Your task to perform on an android device: What's the weather today? Image 0: 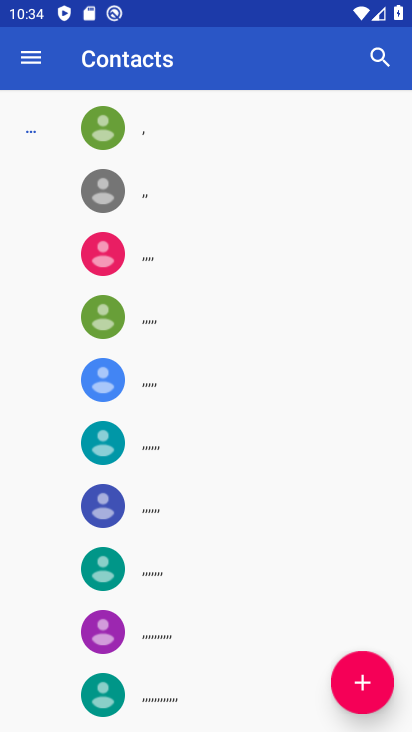
Step 0: press home button
Your task to perform on an android device: What's the weather today? Image 1: 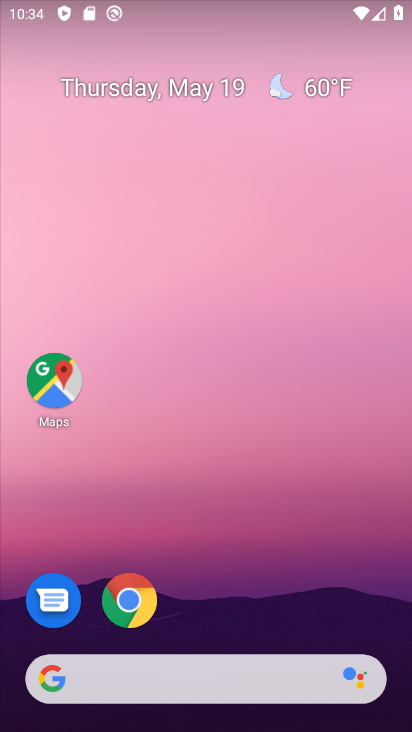
Step 1: drag from (379, 601) to (385, 268)
Your task to perform on an android device: What's the weather today? Image 2: 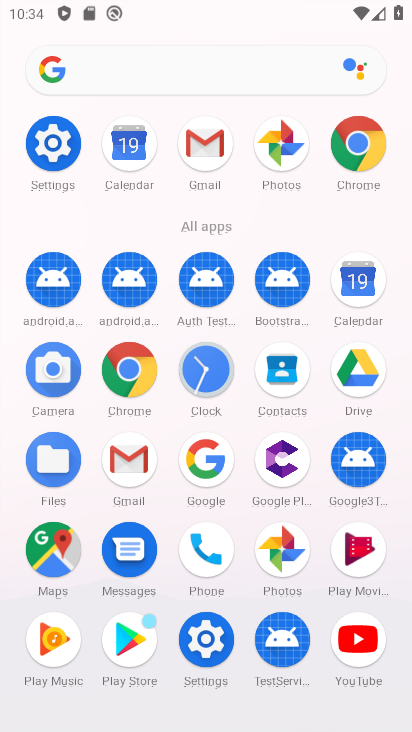
Step 2: click (213, 461)
Your task to perform on an android device: What's the weather today? Image 3: 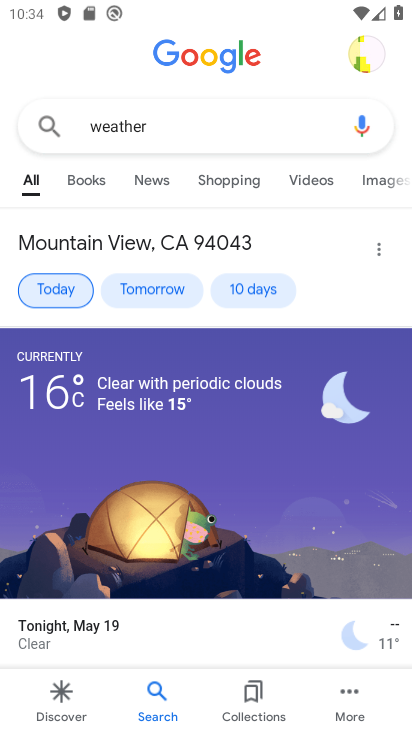
Step 3: click (67, 277)
Your task to perform on an android device: What's the weather today? Image 4: 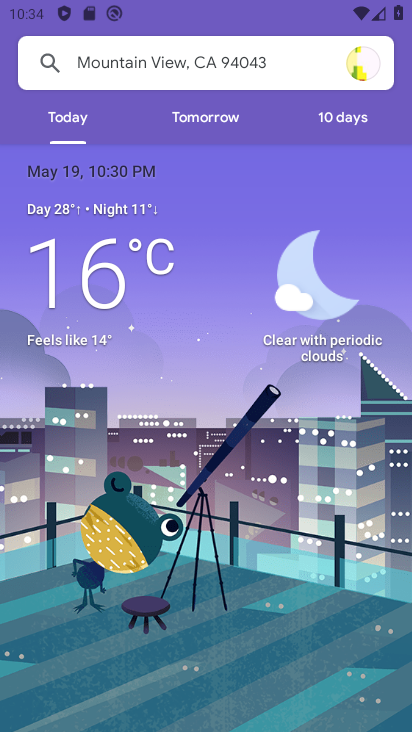
Step 4: task complete